Your task to perform on an android device: Turn off the flashlight Image 0: 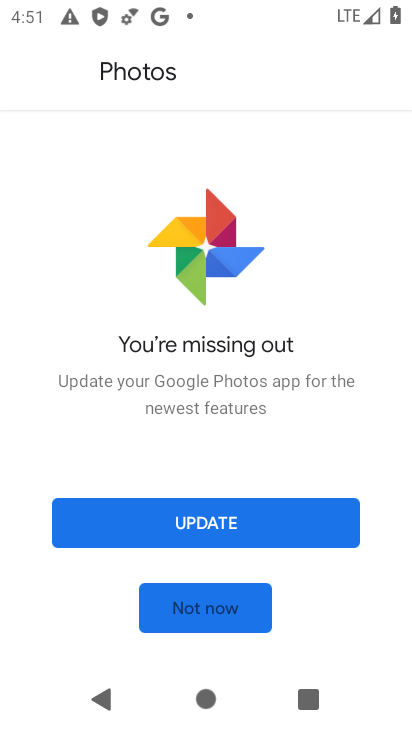
Step 0: click (260, 606)
Your task to perform on an android device: Turn off the flashlight Image 1: 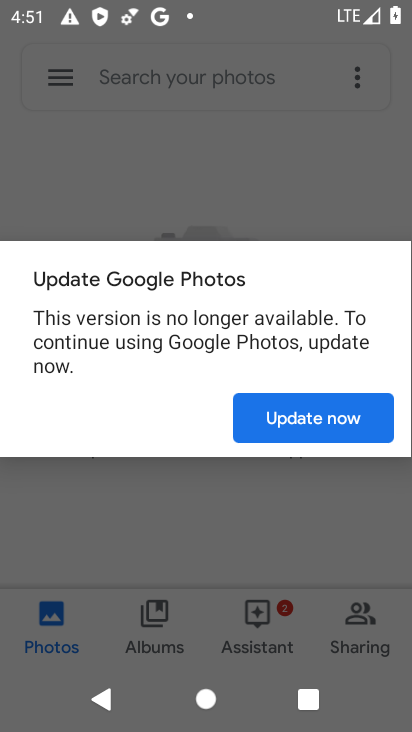
Step 1: press home button
Your task to perform on an android device: Turn off the flashlight Image 2: 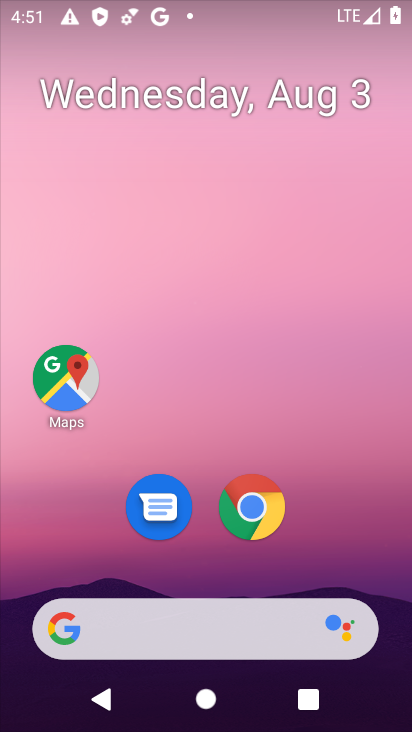
Step 2: drag from (315, 515) to (308, 21)
Your task to perform on an android device: Turn off the flashlight Image 3: 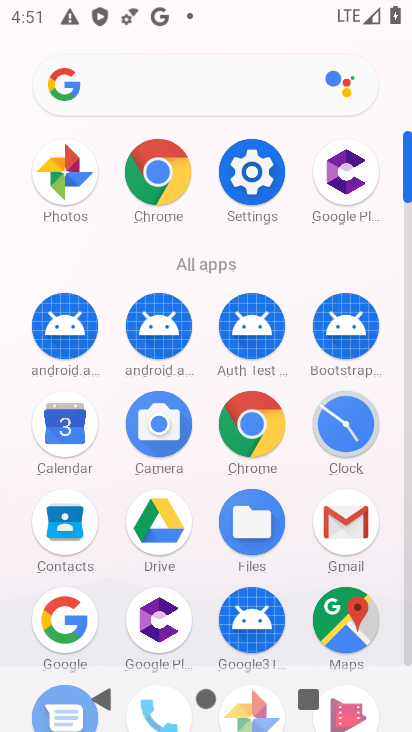
Step 3: click (243, 152)
Your task to perform on an android device: Turn off the flashlight Image 4: 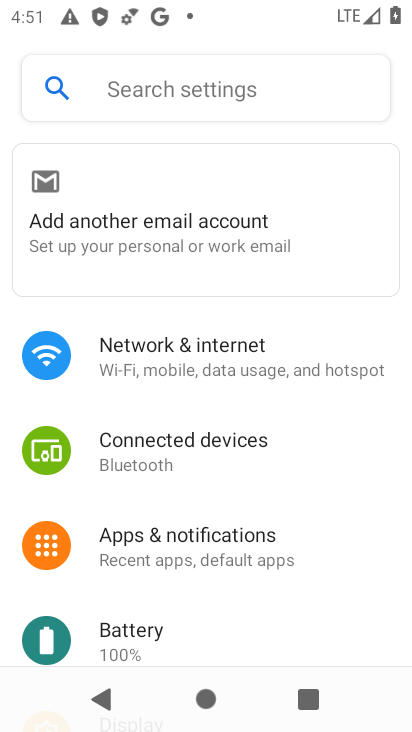
Step 4: drag from (318, 494) to (386, 4)
Your task to perform on an android device: Turn off the flashlight Image 5: 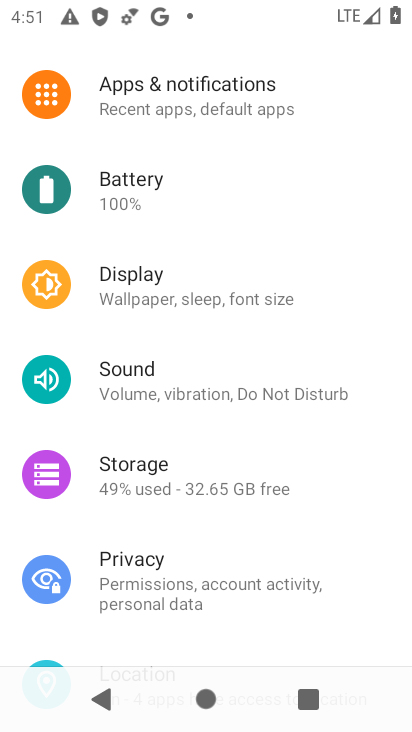
Step 5: click (222, 302)
Your task to perform on an android device: Turn off the flashlight Image 6: 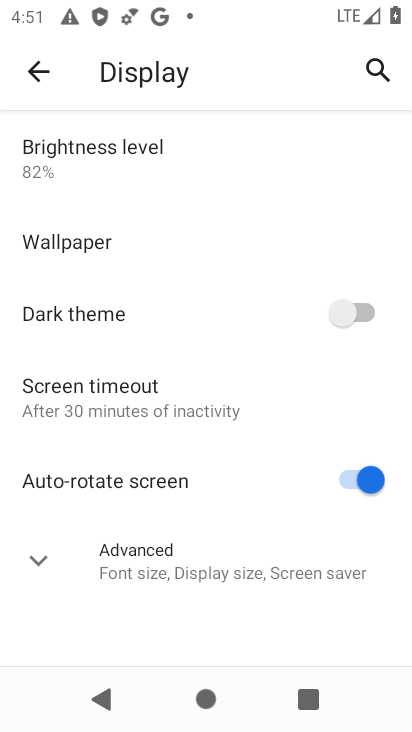
Step 6: drag from (115, 177) to (171, 605)
Your task to perform on an android device: Turn off the flashlight Image 7: 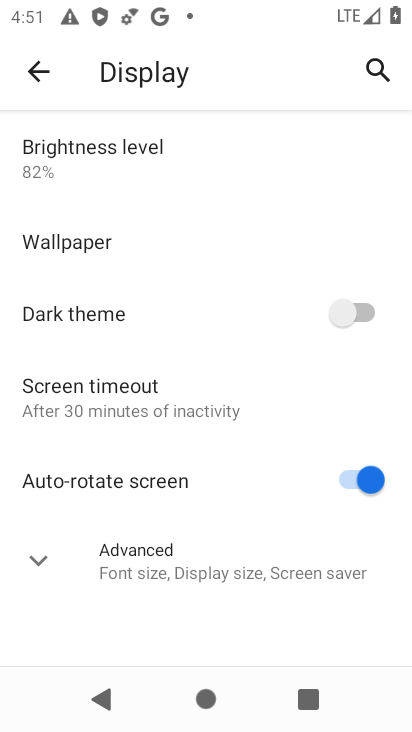
Step 7: drag from (216, 493) to (212, 58)
Your task to perform on an android device: Turn off the flashlight Image 8: 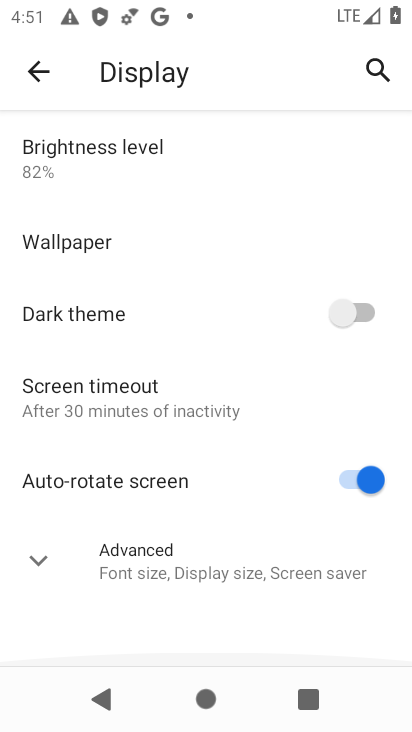
Step 8: drag from (190, 184) to (182, 507)
Your task to perform on an android device: Turn off the flashlight Image 9: 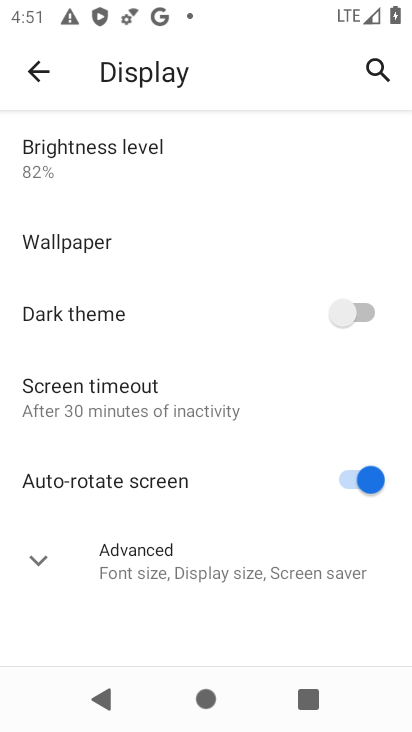
Step 9: click (176, 413)
Your task to perform on an android device: Turn off the flashlight Image 10: 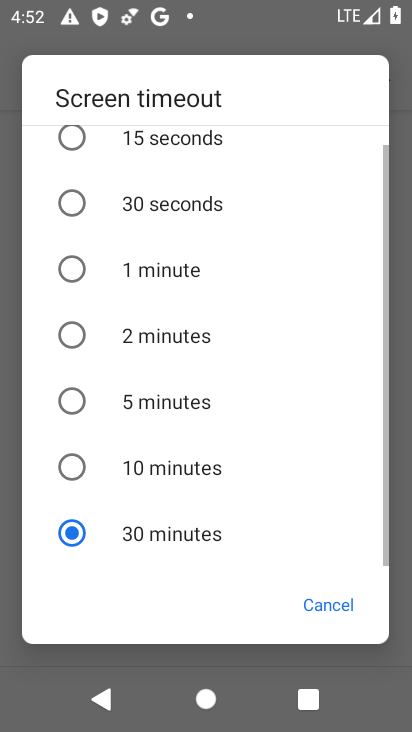
Step 10: task complete